Your task to perform on an android device: Open calendar and show me the first week of next month Image 0: 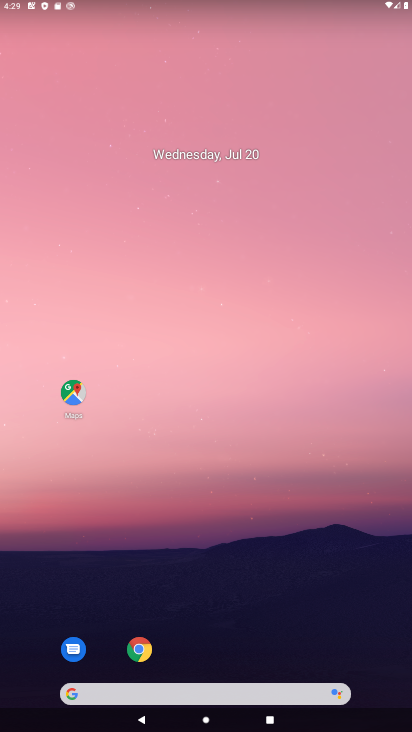
Step 0: drag from (167, 663) to (208, 56)
Your task to perform on an android device: Open calendar and show me the first week of next month Image 1: 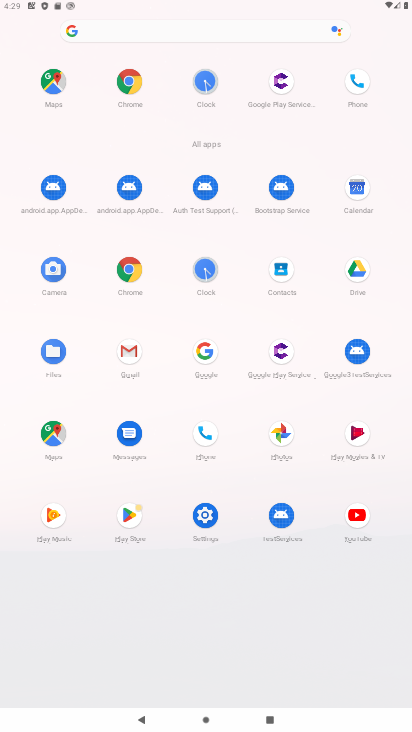
Step 1: click (352, 183)
Your task to perform on an android device: Open calendar and show me the first week of next month Image 2: 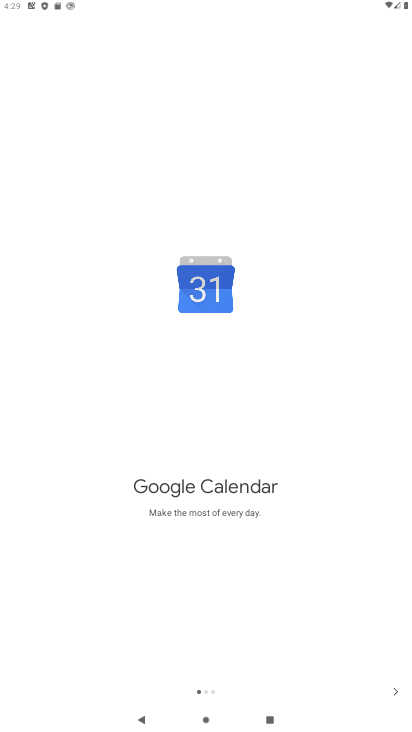
Step 2: click (391, 689)
Your task to perform on an android device: Open calendar and show me the first week of next month Image 3: 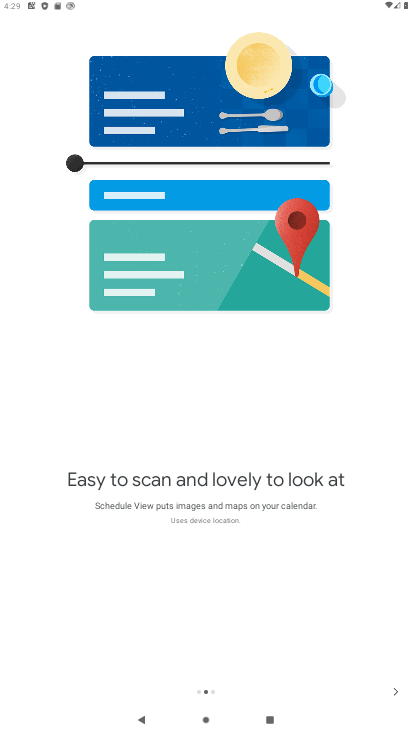
Step 3: click (391, 689)
Your task to perform on an android device: Open calendar and show me the first week of next month Image 4: 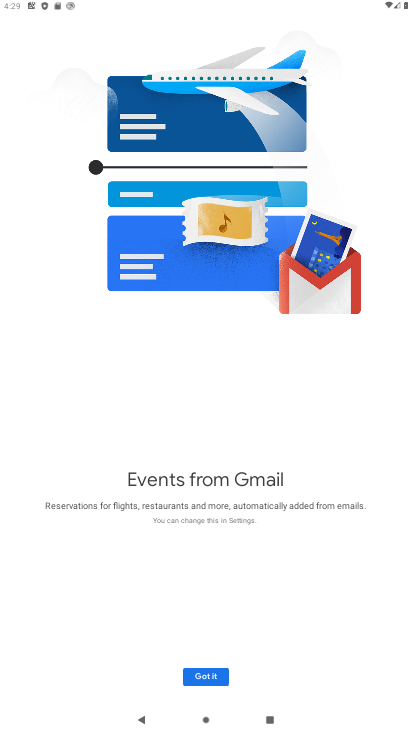
Step 4: click (214, 673)
Your task to perform on an android device: Open calendar and show me the first week of next month Image 5: 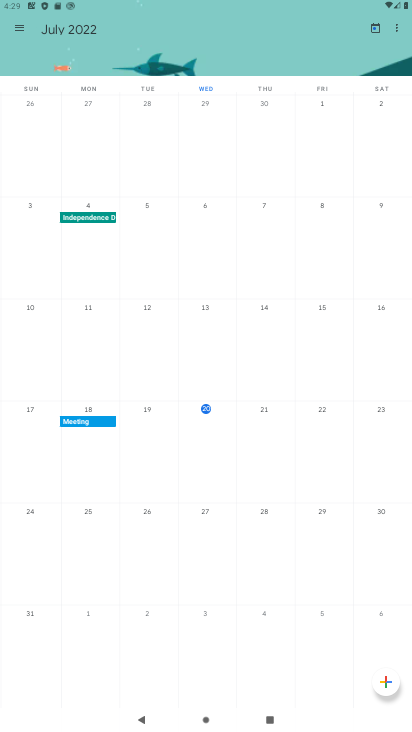
Step 5: drag from (388, 370) to (10, 298)
Your task to perform on an android device: Open calendar and show me the first week of next month Image 6: 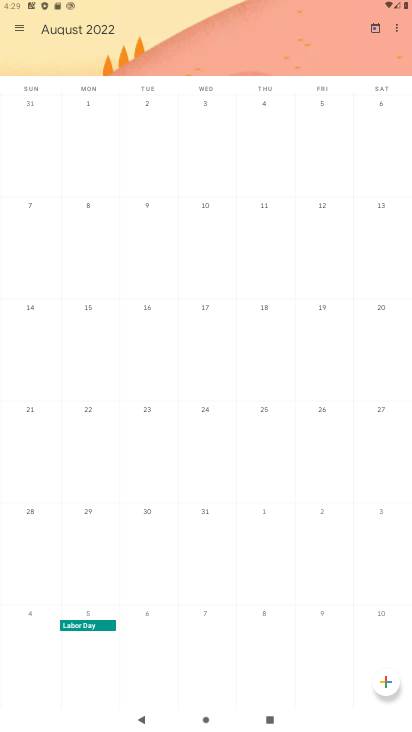
Step 6: click (79, 102)
Your task to perform on an android device: Open calendar and show me the first week of next month Image 7: 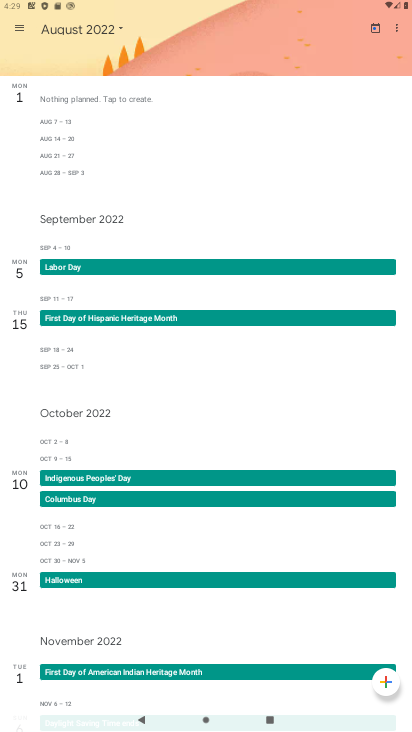
Step 7: task complete